Your task to perform on an android device: When is my next meeting? Image 0: 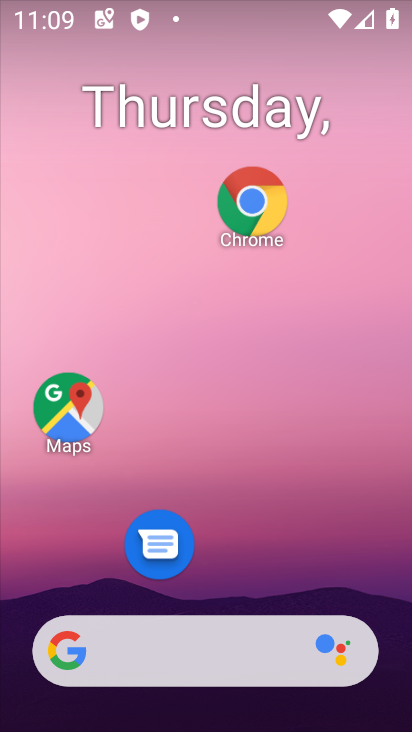
Step 0: drag from (229, 555) to (238, 35)
Your task to perform on an android device: When is my next meeting? Image 1: 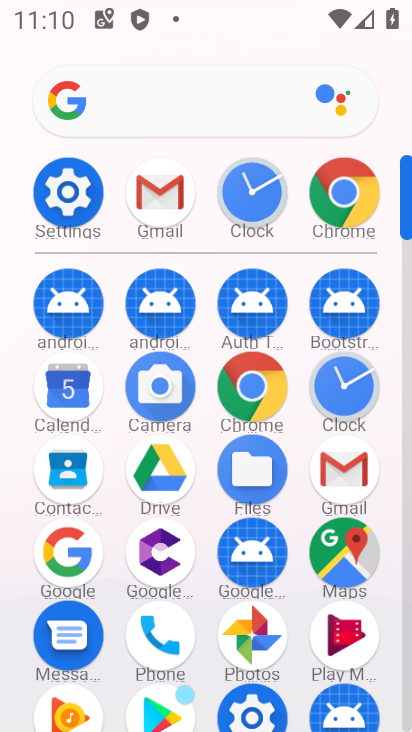
Step 1: click (64, 386)
Your task to perform on an android device: When is my next meeting? Image 2: 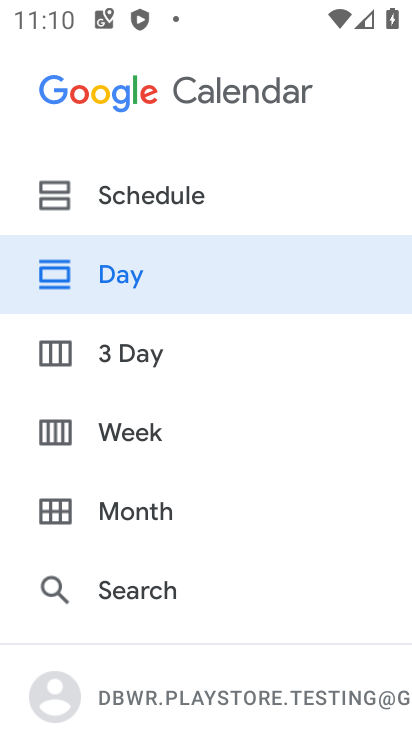
Step 2: drag from (143, 660) to (143, 169)
Your task to perform on an android device: When is my next meeting? Image 3: 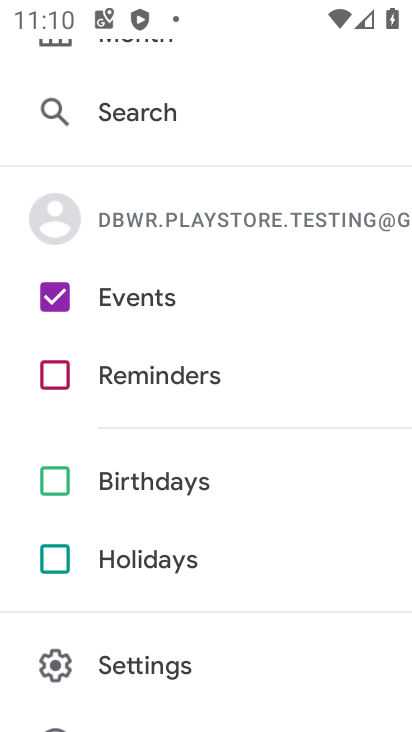
Step 3: drag from (141, 235) to (131, 725)
Your task to perform on an android device: When is my next meeting? Image 4: 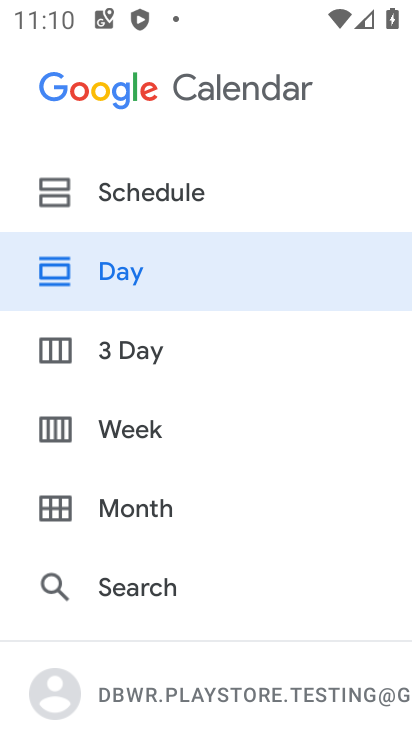
Step 4: click (73, 423)
Your task to perform on an android device: When is my next meeting? Image 5: 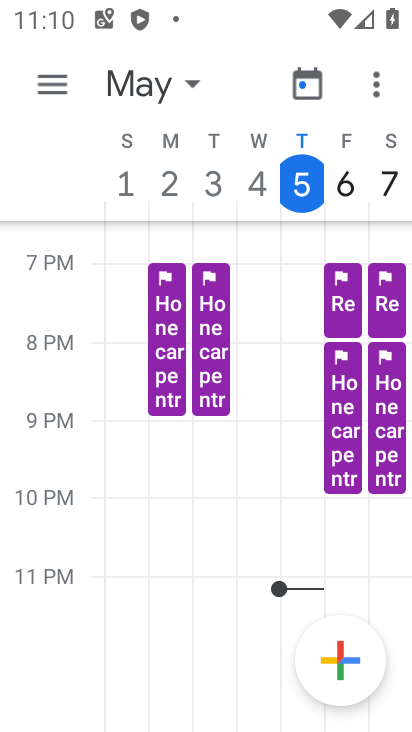
Step 5: click (310, 186)
Your task to perform on an android device: When is my next meeting? Image 6: 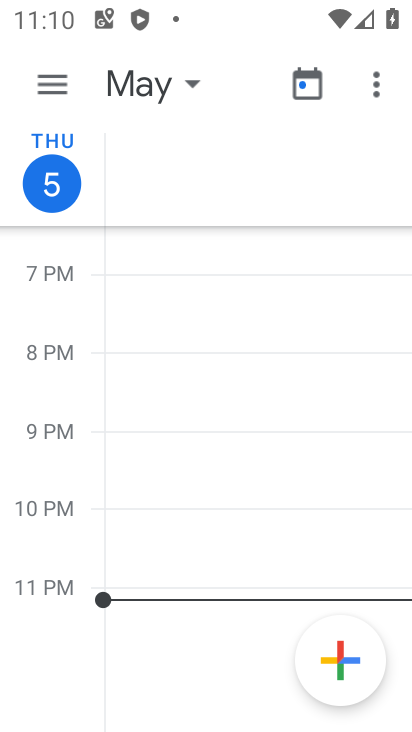
Step 6: click (75, 196)
Your task to perform on an android device: When is my next meeting? Image 7: 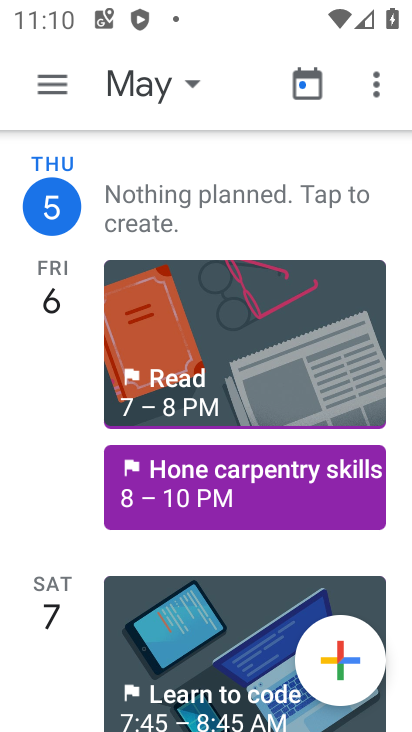
Step 7: task complete